Your task to perform on an android device: toggle priority inbox in the gmail app Image 0: 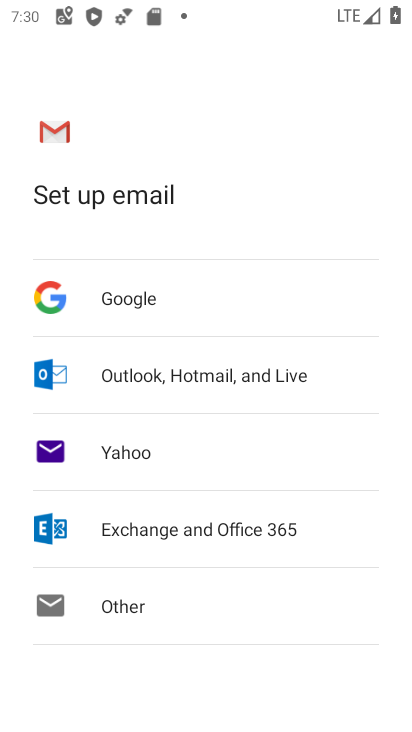
Step 0: press home button
Your task to perform on an android device: toggle priority inbox in the gmail app Image 1: 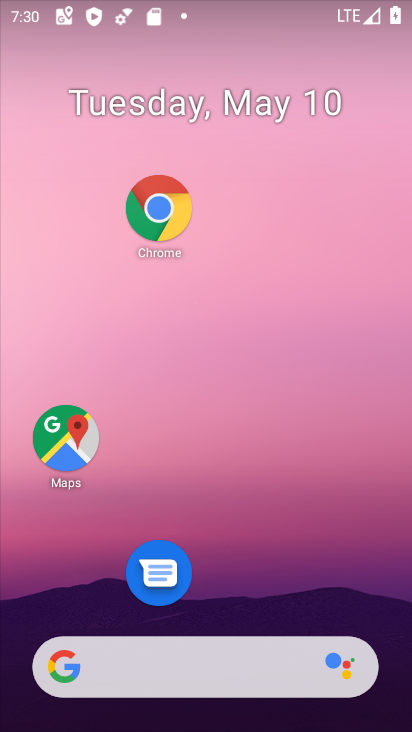
Step 1: drag from (290, 698) to (290, 409)
Your task to perform on an android device: toggle priority inbox in the gmail app Image 2: 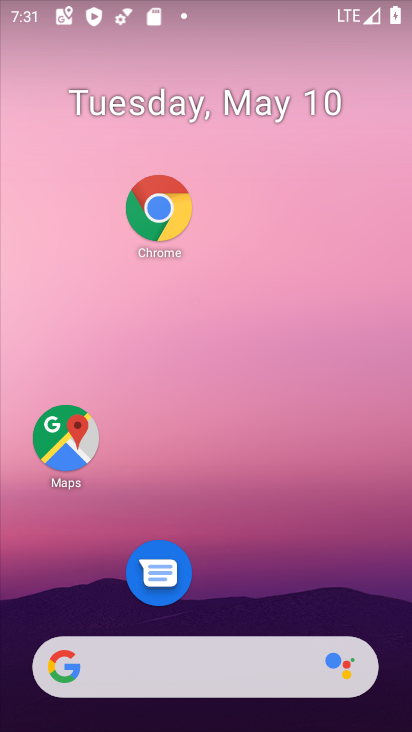
Step 2: drag from (323, 703) to (246, 326)
Your task to perform on an android device: toggle priority inbox in the gmail app Image 3: 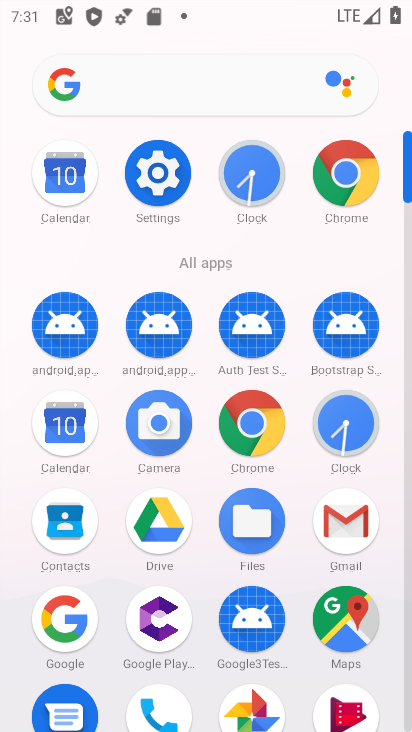
Step 3: click (355, 527)
Your task to perform on an android device: toggle priority inbox in the gmail app Image 4: 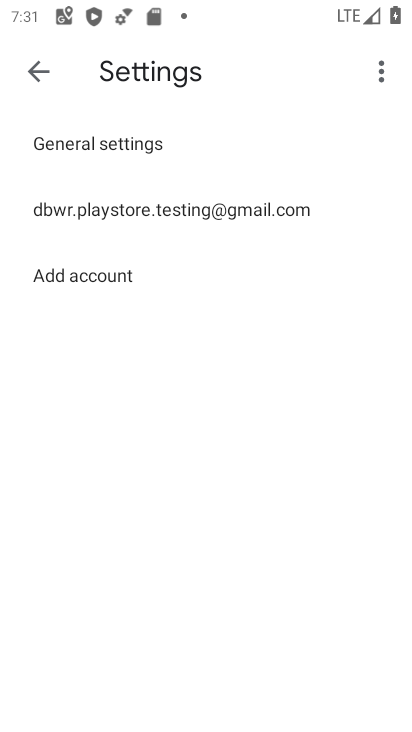
Step 4: click (171, 196)
Your task to perform on an android device: toggle priority inbox in the gmail app Image 5: 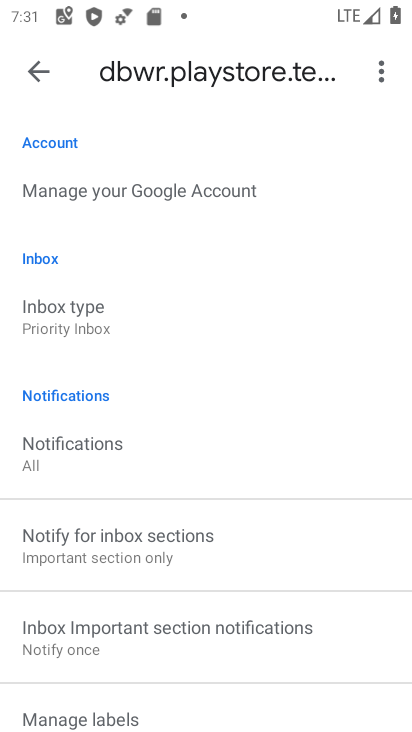
Step 5: click (146, 316)
Your task to perform on an android device: toggle priority inbox in the gmail app Image 6: 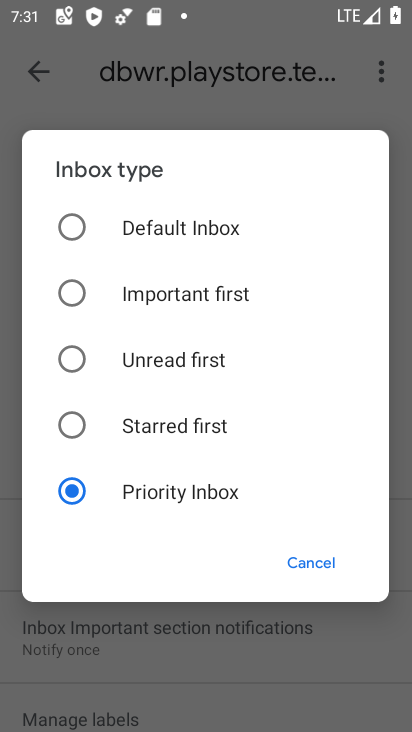
Step 6: task complete